Your task to perform on an android device: Open Youtube and go to the subscriptions tab Image 0: 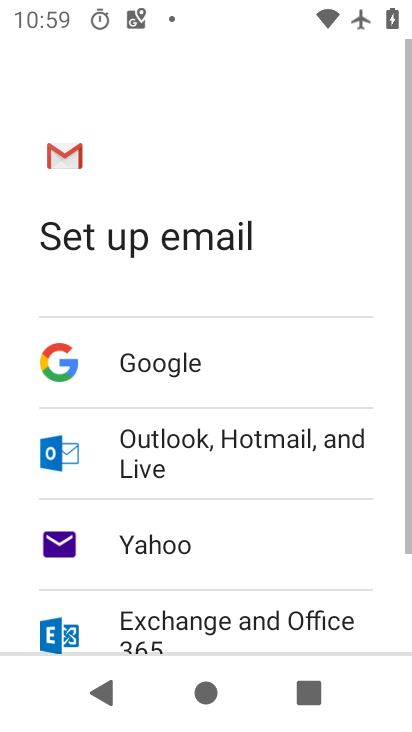
Step 0: press home button
Your task to perform on an android device: Open Youtube and go to the subscriptions tab Image 1: 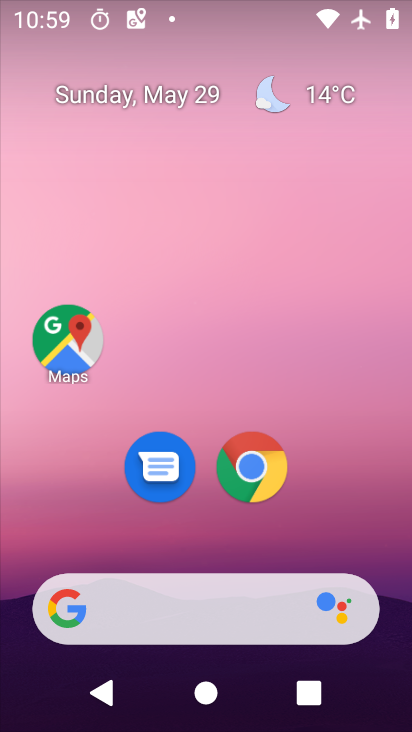
Step 1: drag from (206, 554) to (207, 190)
Your task to perform on an android device: Open Youtube and go to the subscriptions tab Image 2: 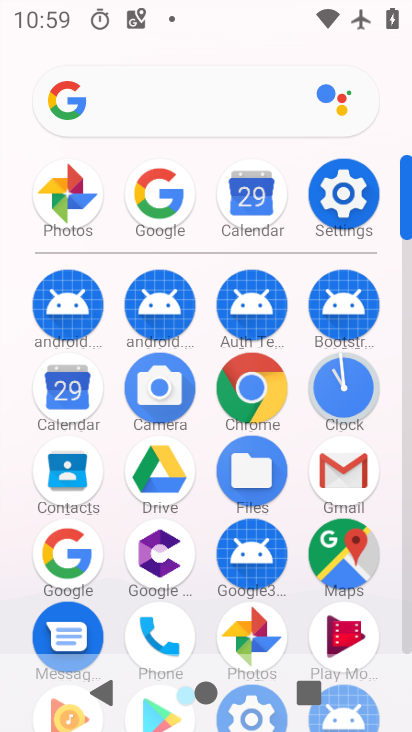
Step 2: drag from (251, 528) to (261, 196)
Your task to perform on an android device: Open Youtube and go to the subscriptions tab Image 3: 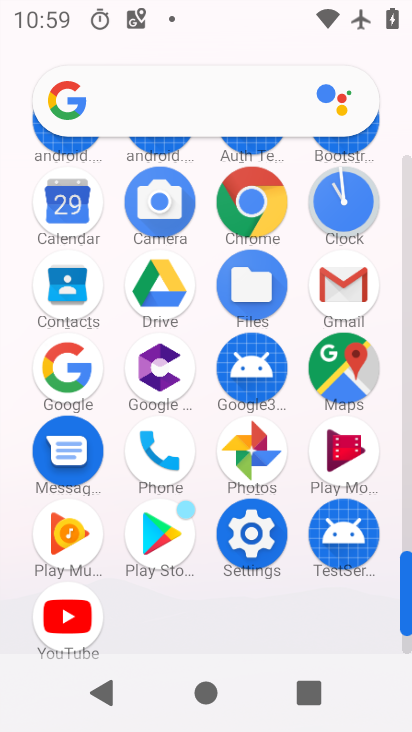
Step 3: click (82, 610)
Your task to perform on an android device: Open Youtube and go to the subscriptions tab Image 4: 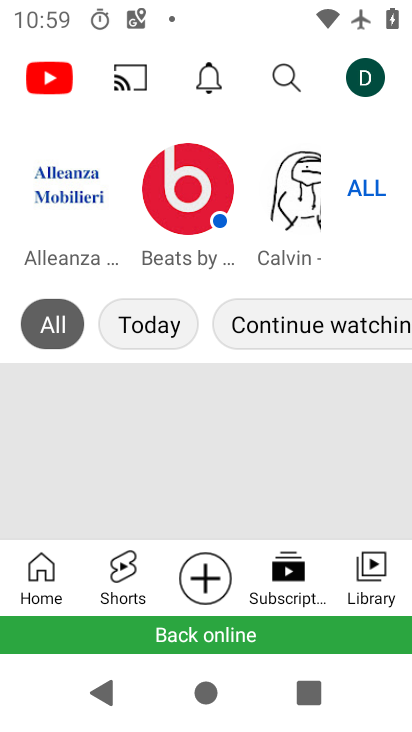
Step 4: click (280, 579)
Your task to perform on an android device: Open Youtube and go to the subscriptions tab Image 5: 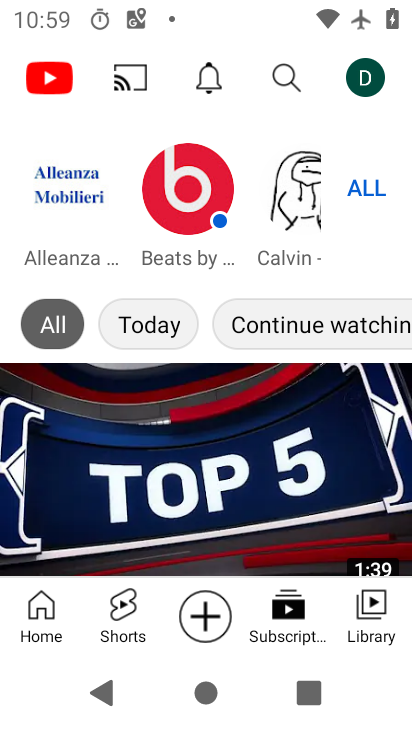
Step 5: click (289, 617)
Your task to perform on an android device: Open Youtube and go to the subscriptions tab Image 6: 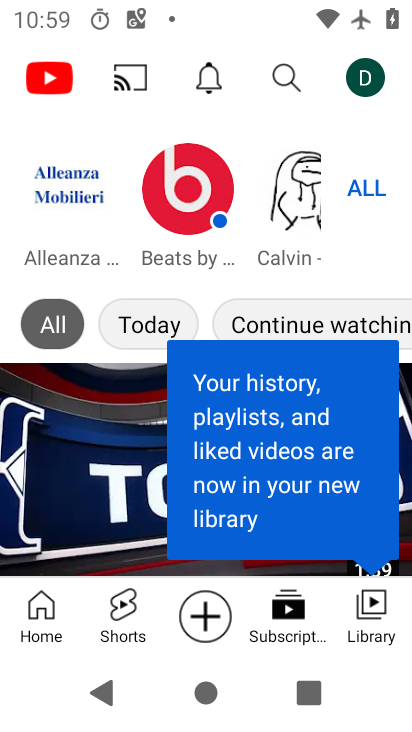
Step 6: task complete